Your task to perform on an android device: Turn off the flashlight Image 0: 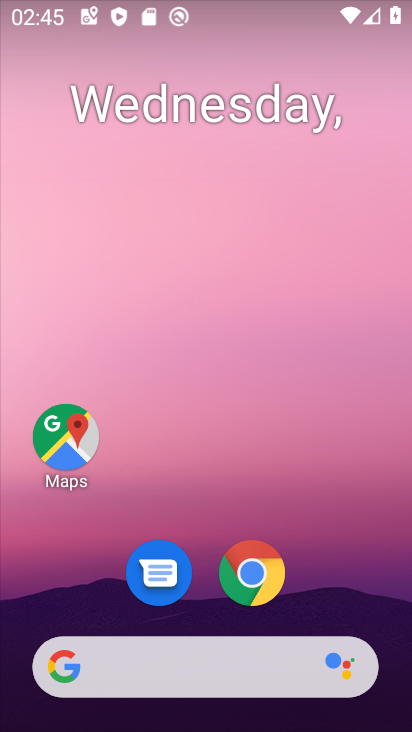
Step 0: drag from (334, 571) to (276, 32)
Your task to perform on an android device: Turn off the flashlight Image 1: 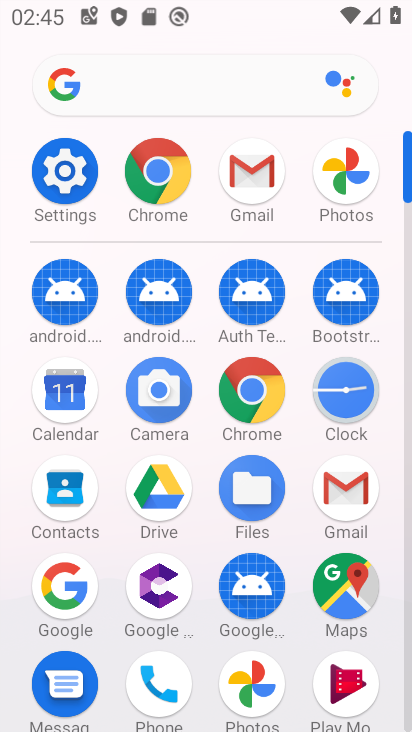
Step 1: click (66, 172)
Your task to perform on an android device: Turn off the flashlight Image 2: 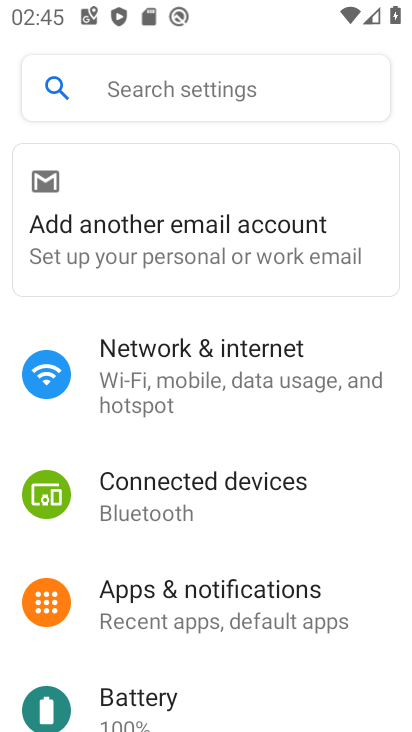
Step 2: drag from (142, 646) to (216, 500)
Your task to perform on an android device: Turn off the flashlight Image 3: 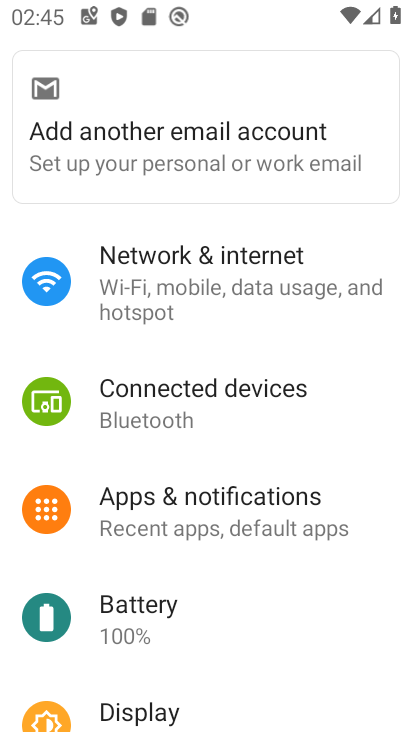
Step 3: drag from (229, 666) to (314, 468)
Your task to perform on an android device: Turn off the flashlight Image 4: 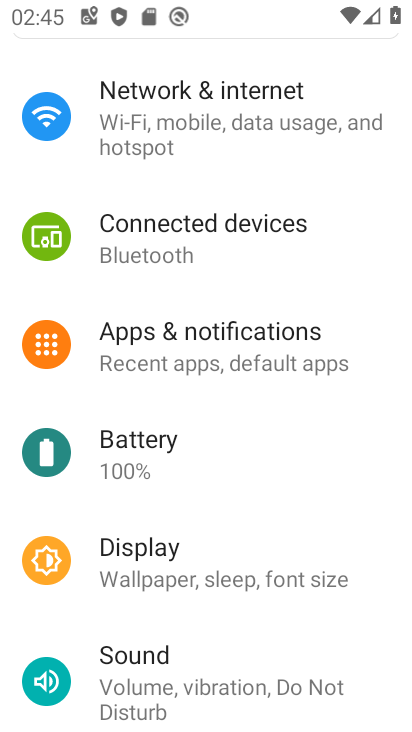
Step 4: click (231, 579)
Your task to perform on an android device: Turn off the flashlight Image 5: 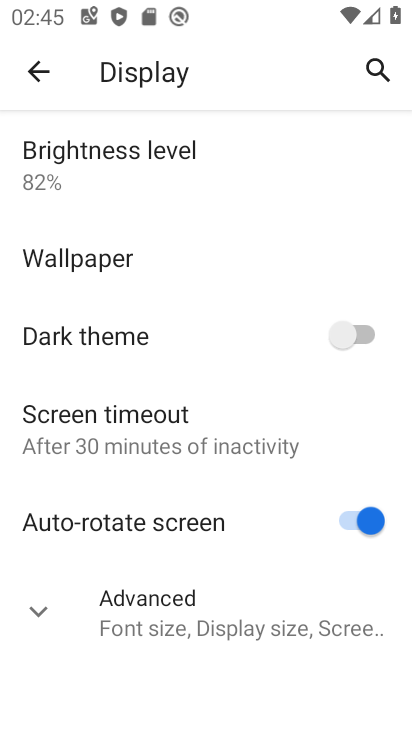
Step 5: click (172, 614)
Your task to perform on an android device: Turn off the flashlight Image 6: 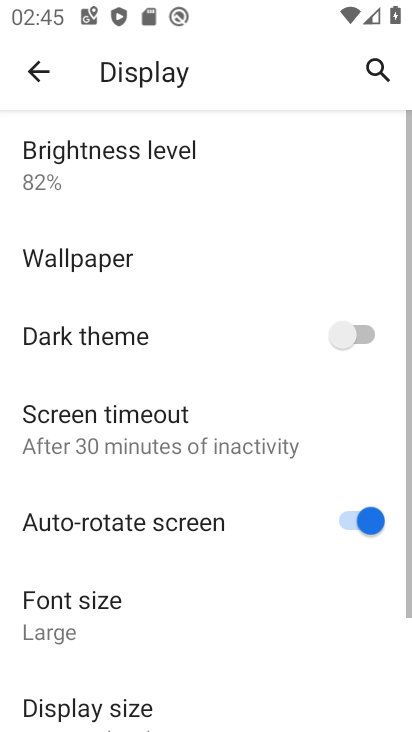
Step 6: drag from (181, 670) to (271, 398)
Your task to perform on an android device: Turn off the flashlight Image 7: 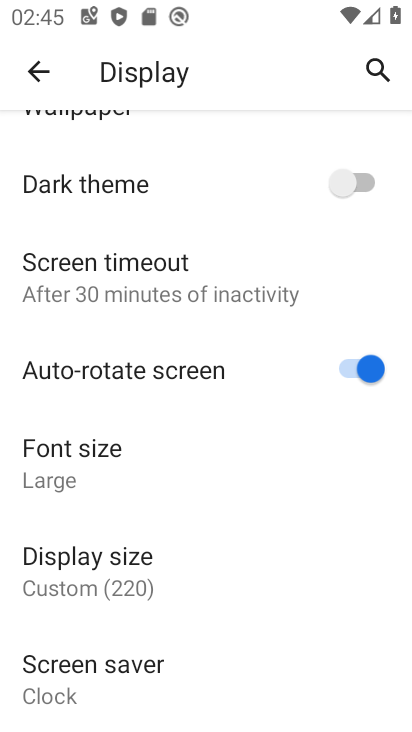
Step 7: drag from (169, 624) to (249, 434)
Your task to perform on an android device: Turn off the flashlight Image 8: 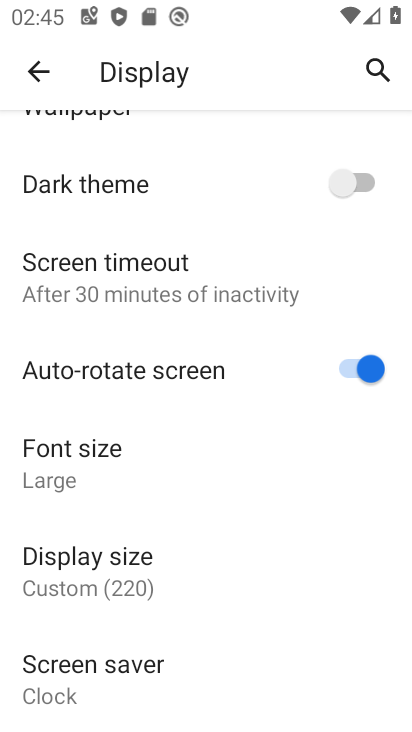
Step 8: press back button
Your task to perform on an android device: Turn off the flashlight Image 9: 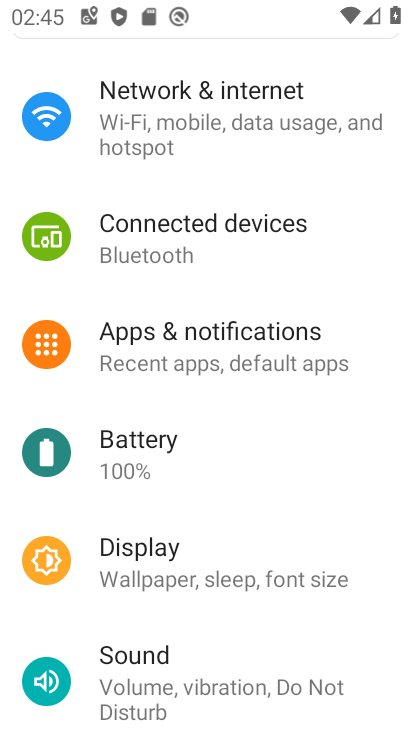
Step 9: click (119, 444)
Your task to perform on an android device: Turn off the flashlight Image 10: 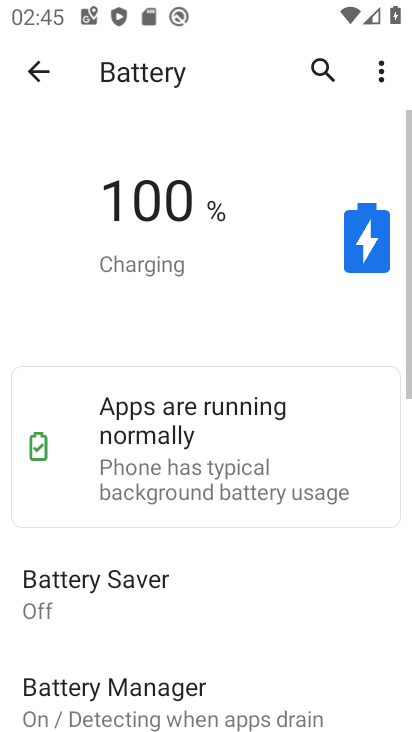
Step 10: drag from (161, 576) to (254, 358)
Your task to perform on an android device: Turn off the flashlight Image 11: 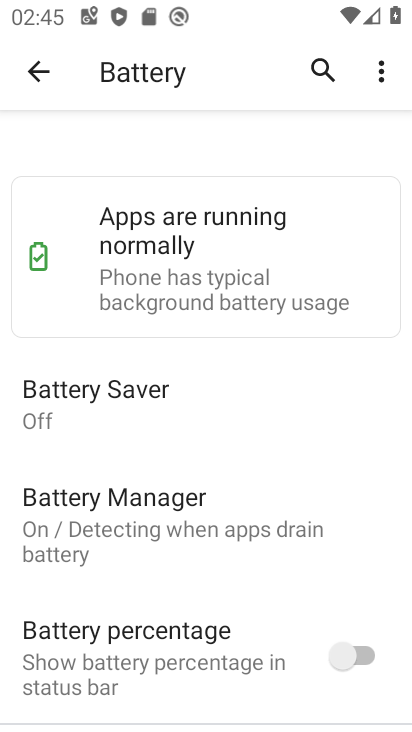
Step 11: drag from (203, 554) to (279, 399)
Your task to perform on an android device: Turn off the flashlight Image 12: 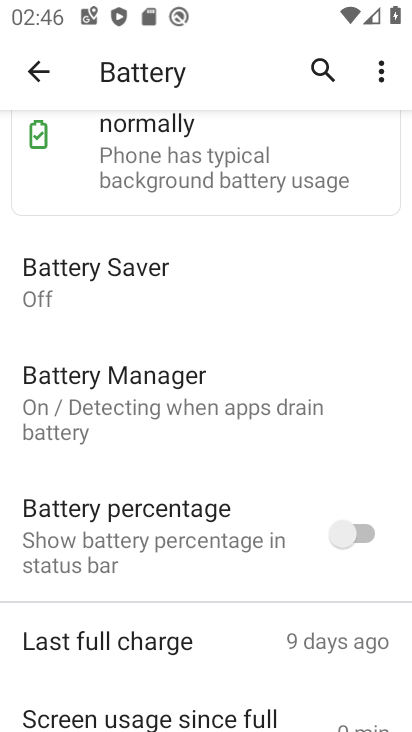
Step 12: press back button
Your task to perform on an android device: Turn off the flashlight Image 13: 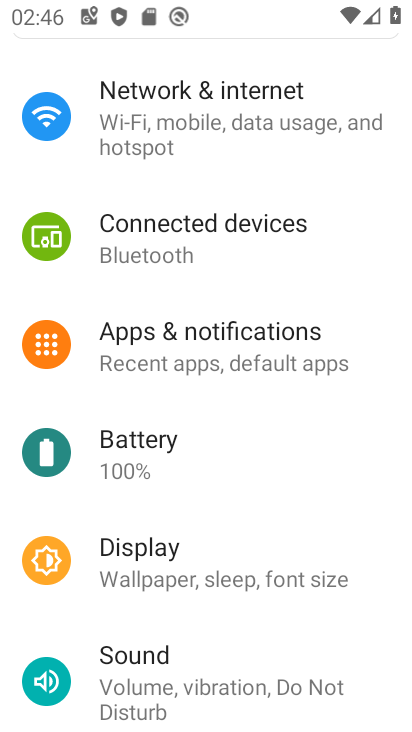
Step 13: drag from (185, 557) to (244, 206)
Your task to perform on an android device: Turn off the flashlight Image 14: 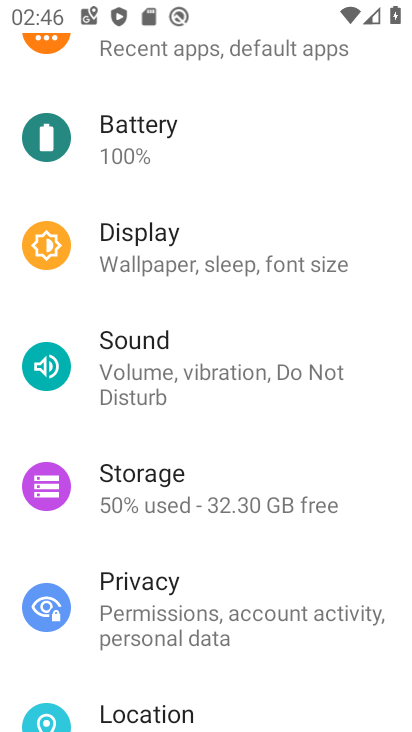
Step 14: drag from (131, 471) to (176, 251)
Your task to perform on an android device: Turn off the flashlight Image 15: 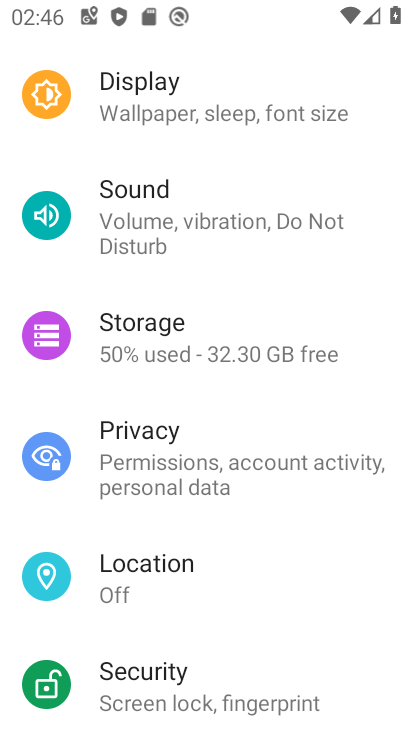
Step 15: drag from (193, 520) to (304, 344)
Your task to perform on an android device: Turn off the flashlight Image 16: 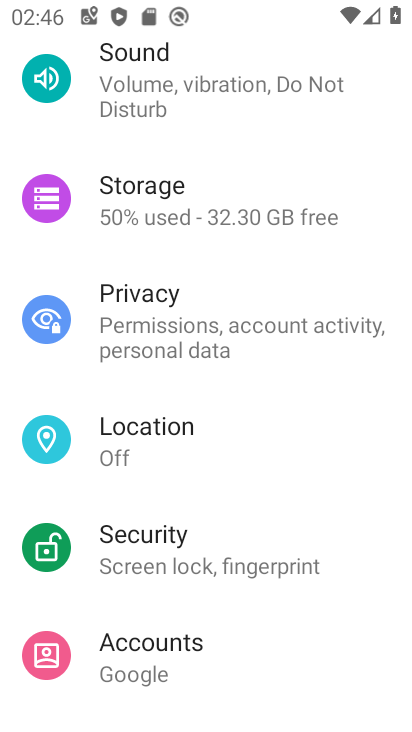
Step 16: drag from (205, 543) to (295, 381)
Your task to perform on an android device: Turn off the flashlight Image 17: 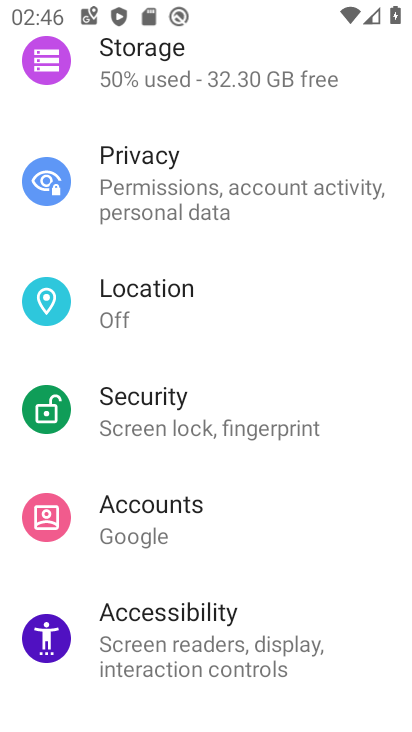
Step 17: drag from (241, 499) to (319, 267)
Your task to perform on an android device: Turn off the flashlight Image 18: 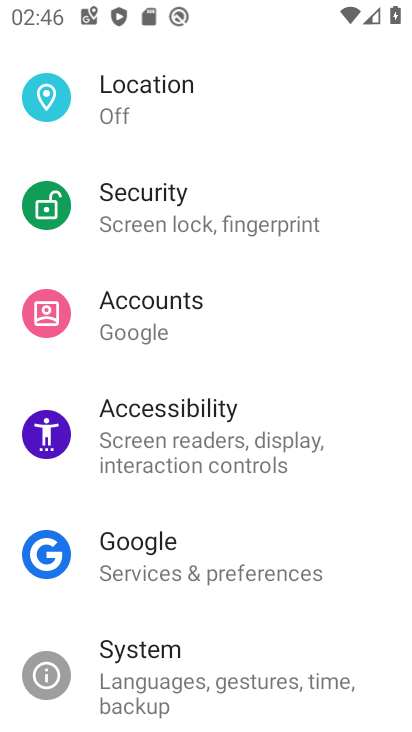
Step 18: click (183, 418)
Your task to perform on an android device: Turn off the flashlight Image 19: 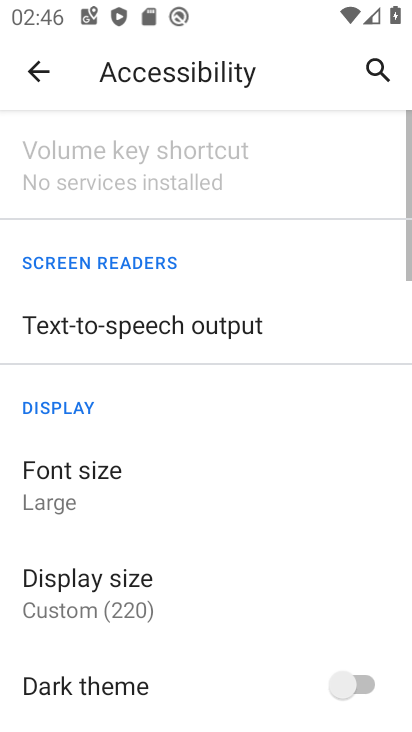
Step 19: task complete